Your task to perform on an android device: turn on showing notifications on the lock screen Image 0: 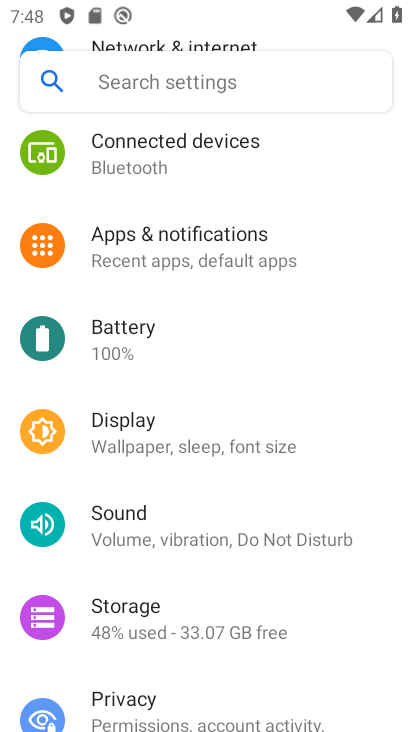
Step 0: click (241, 244)
Your task to perform on an android device: turn on showing notifications on the lock screen Image 1: 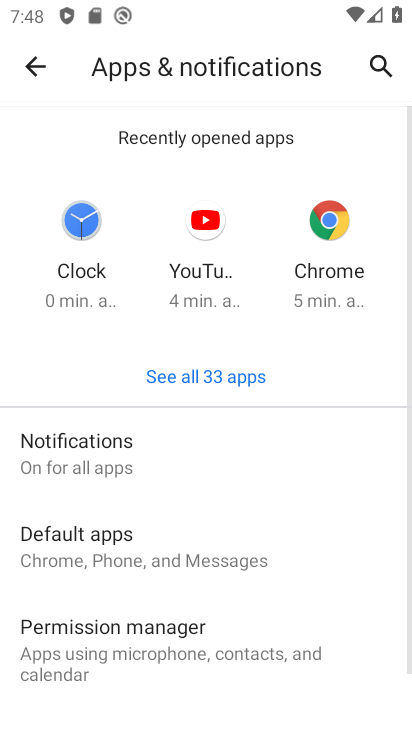
Step 1: click (134, 447)
Your task to perform on an android device: turn on showing notifications on the lock screen Image 2: 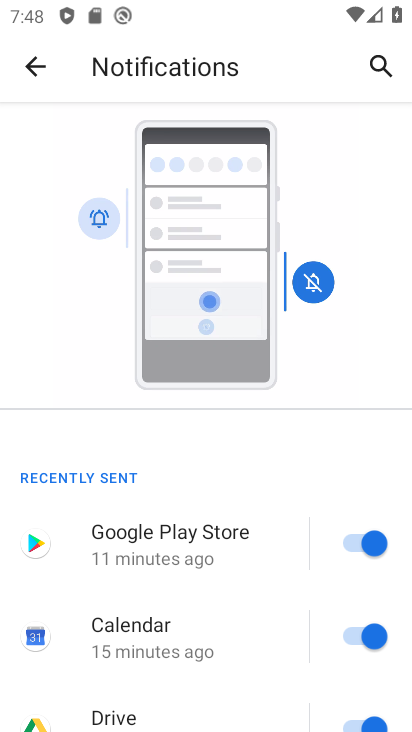
Step 2: drag from (242, 487) to (304, 86)
Your task to perform on an android device: turn on showing notifications on the lock screen Image 3: 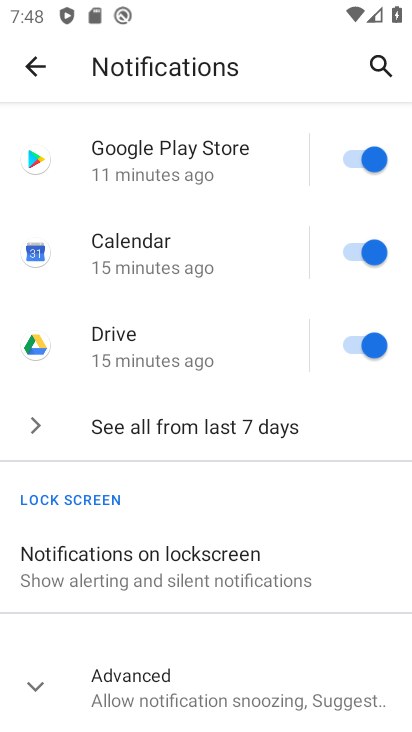
Step 3: click (226, 573)
Your task to perform on an android device: turn on showing notifications on the lock screen Image 4: 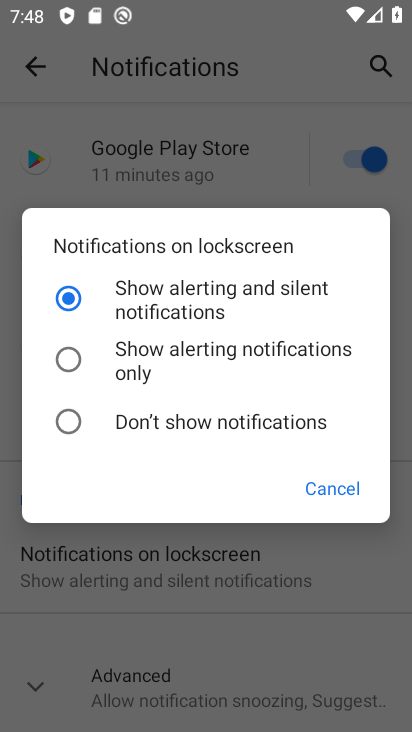
Step 4: click (347, 486)
Your task to perform on an android device: turn on showing notifications on the lock screen Image 5: 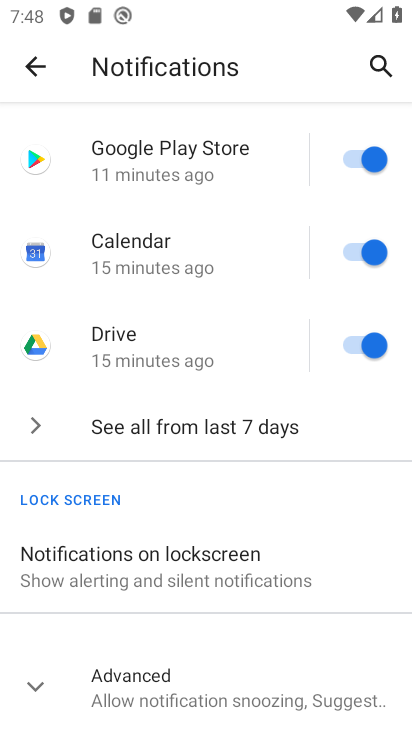
Step 5: task complete